Your task to perform on an android device: turn on sleep mode Image 0: 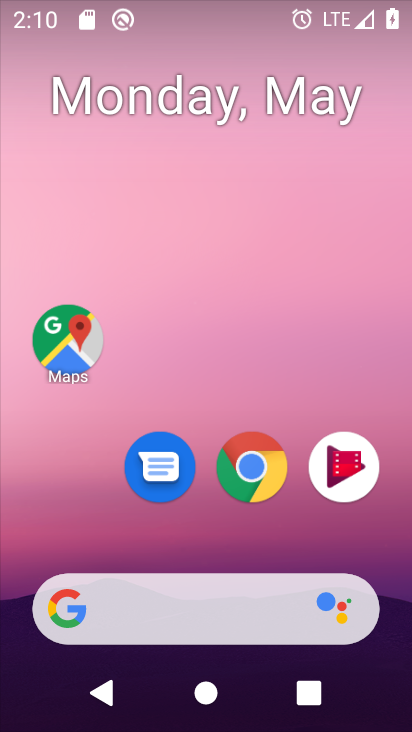
Step 0: drag from (257, 453) to (266, 175)
Your task to perform on an android device: turn on sleep mode Image 1: 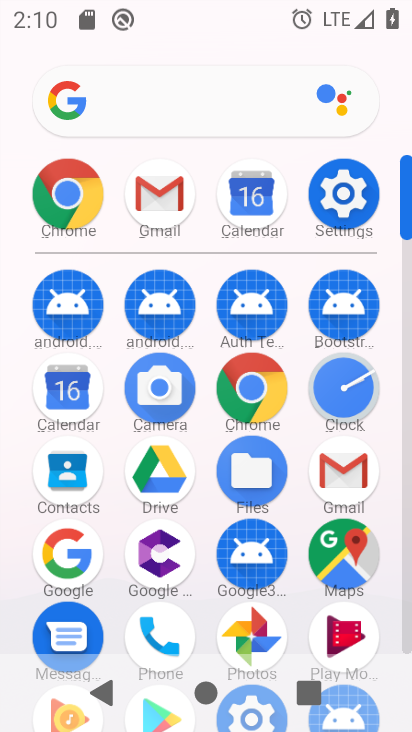
Step 1: click (339, 169)
Your task to perform on an android device: turn on sleep mode Image 2: 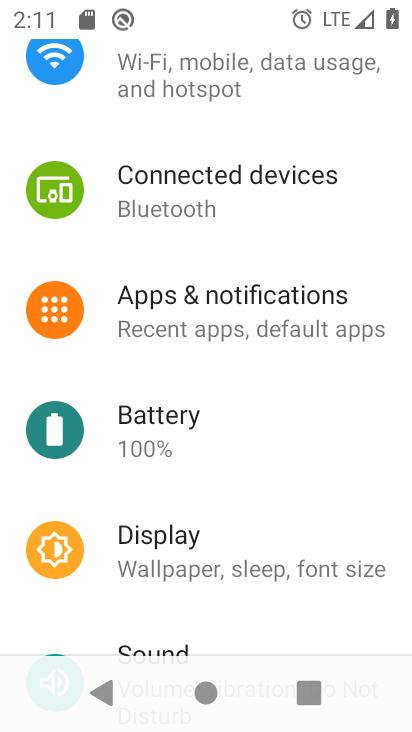
Step 2: task complete